Your task to perform on an android device: Open Wikipedia Image 0: 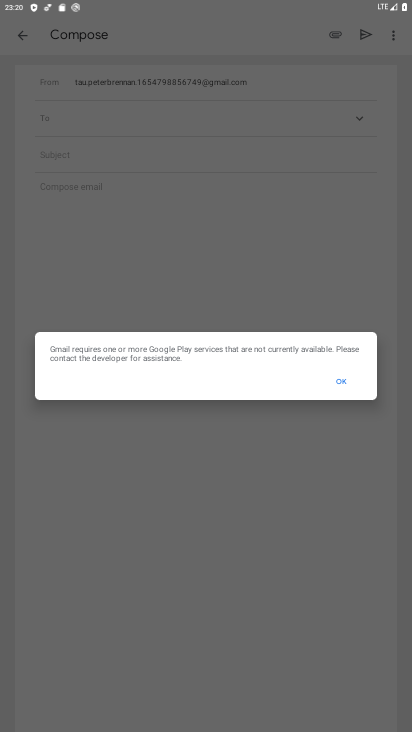
Step 0: press home button
Your task to perform on an android device: Open Wikipedia Image 1: 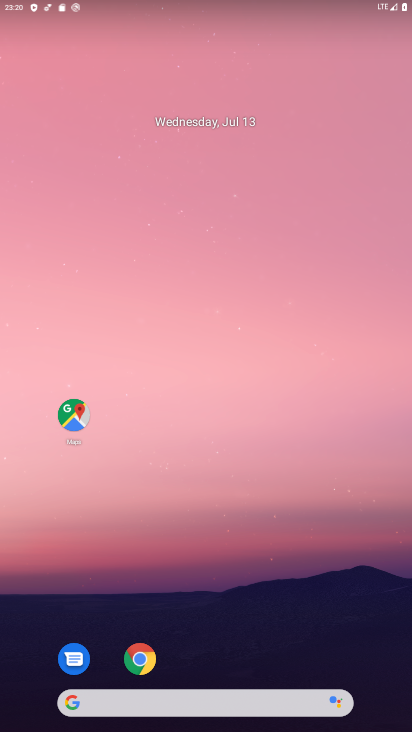
Step 1: click (141, 658)
Your task to perform on an android device: Open Wikipedia Image 2: 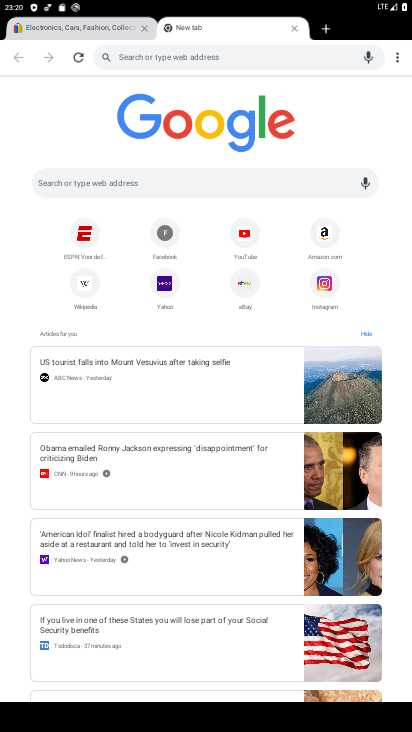
Step 2: click (151, 169)
Your task to perform on an android device: Open Wikipedia Image 3: 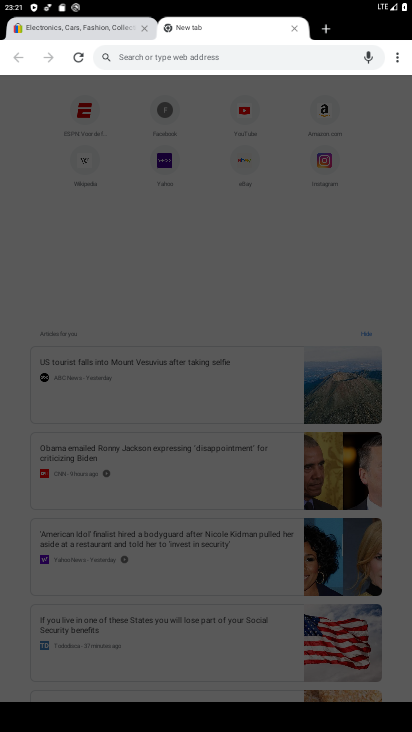
Step 3: type "wikipedia"
Your task to perform on an android device: Open Wikipedia Image 4: 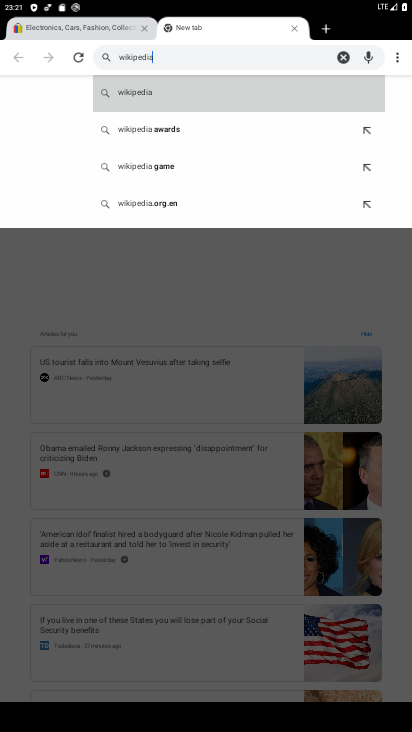
Step 4: click (138, 87)
Your task to perform on an android device: Open Wikipedia Image 5: 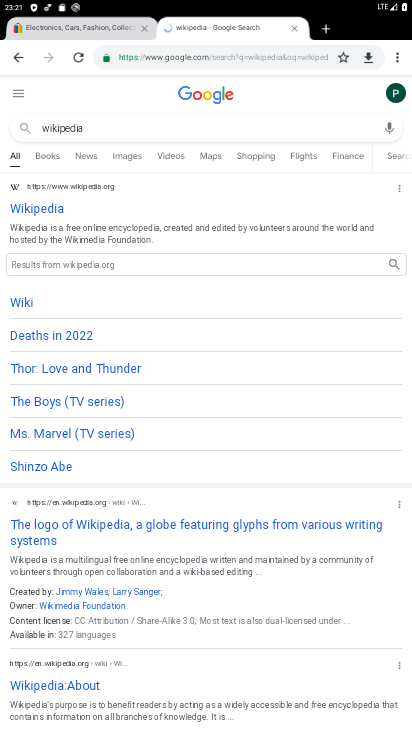
Step 5: click (48, 218)
Your task to perform on an android device: Open Wikipedia Image 6: 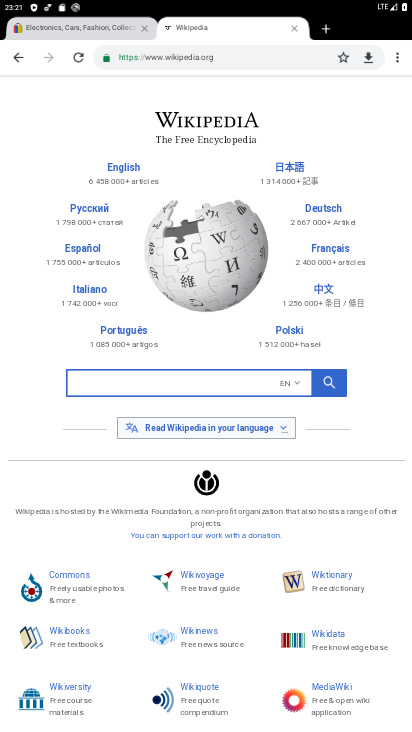
Step 6: task complete